Your task to perform on an android device: What's on my calendar tomorrow? Image 0: 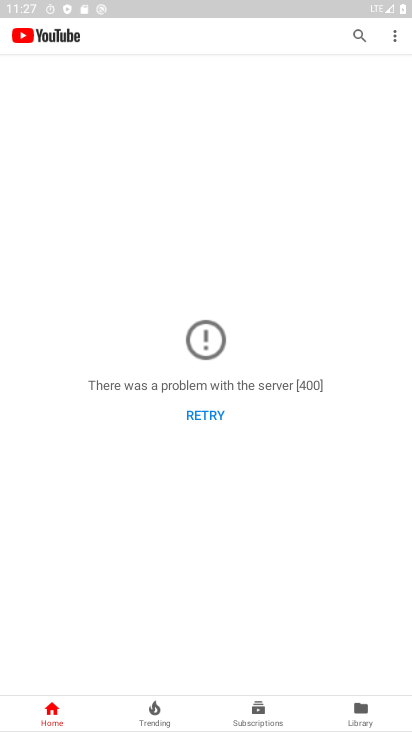
Step 0: press home button
Your task to perform on an android device: What's on my calendar tomorrow? Image 1: 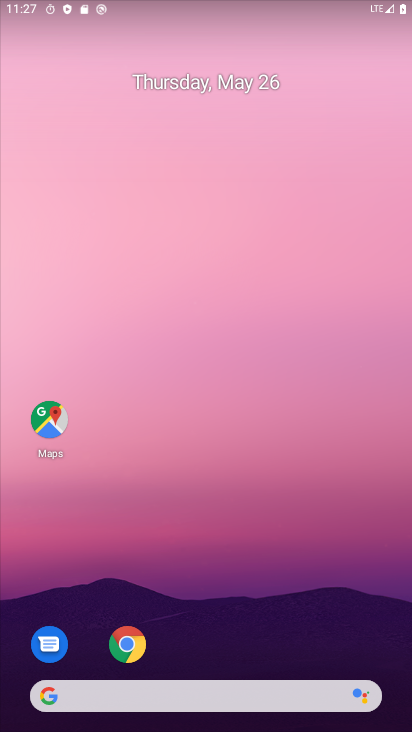
Step 1: drag from (106, 725) to (228, 80)
Your task to perform on an android device: What's on my calendar tomorrow? Image 2: 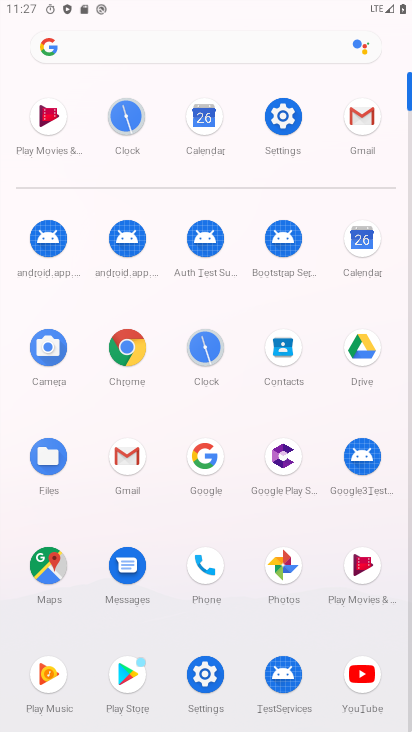
Step 2: click (370, 251)
Your task to perform on an android device: What's on my calendar tomorrow? Image 3: 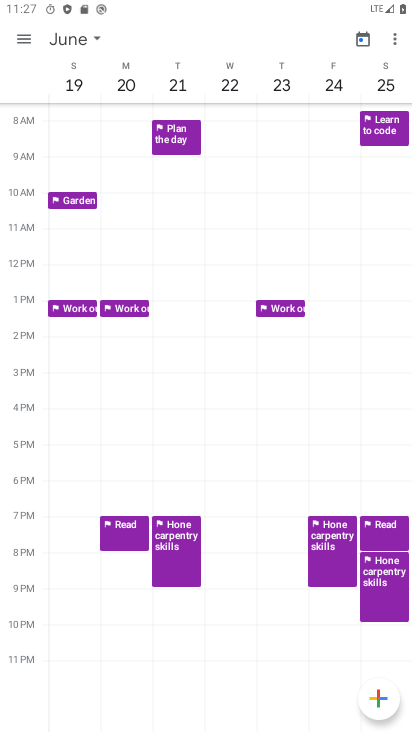
Step 3: click (101, 39)
Your task to perform on an android device: What's on my calendar tomorrow? Image 4: 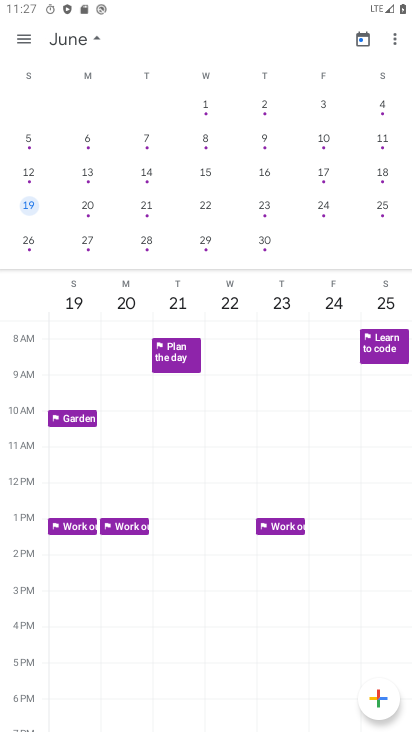
Step 4: drag from (69, 102) to (360, 121)
Your task to perform on an android device: What's on my calendar tomorrow? Image 5: 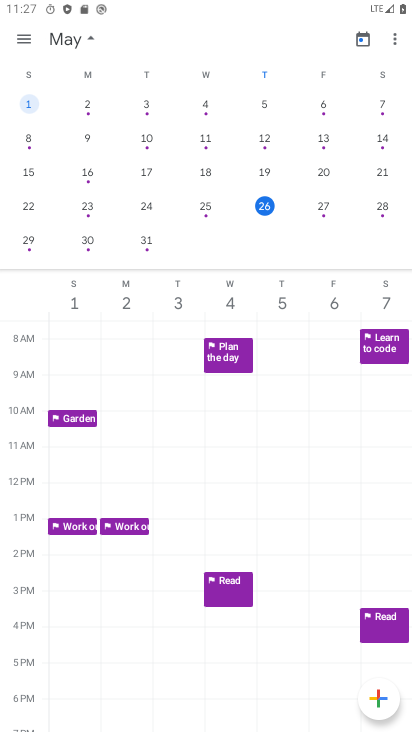
Step 5: click (322, 208)
Your task to perform on an android device: What's on my calendar tomorrow? Image 6: 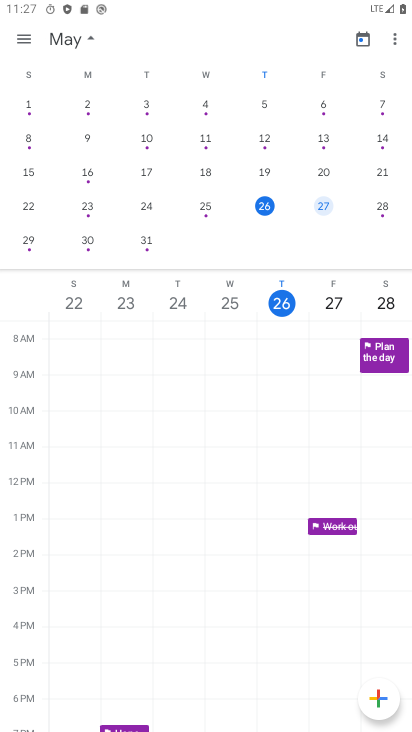
Step 6: click (89, 40)
Your task to perform on an android device: What's on my calendar tomorrow? Image 7: 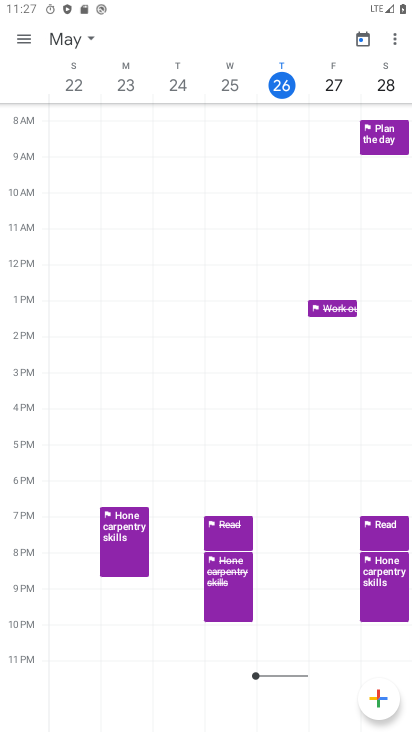
Step 7: click (25, 38)
Your task to perform on an android device: What's on my calendar tomorrow? Image 8: 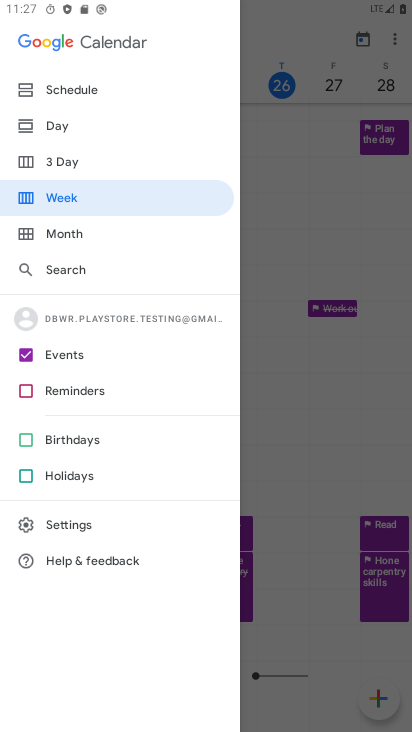
Step 8: click (90, 84)
Your task to perform on an android device: What's on my calendar tomorrow? Image 9: 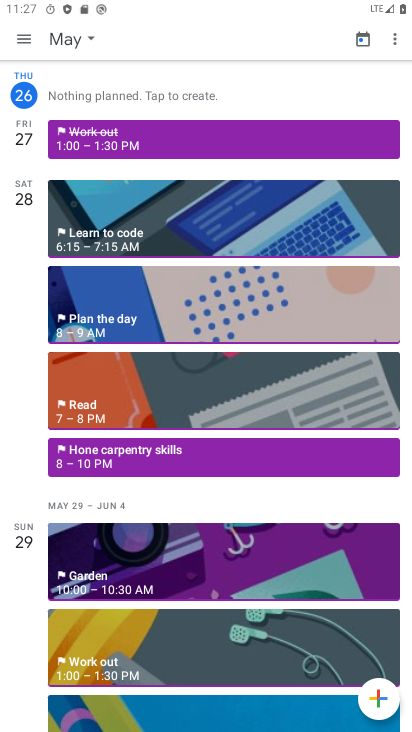
Step 9: click (187, 152)
Your task to perform on an android device: What's on my calendar tomorrow? Image 10: 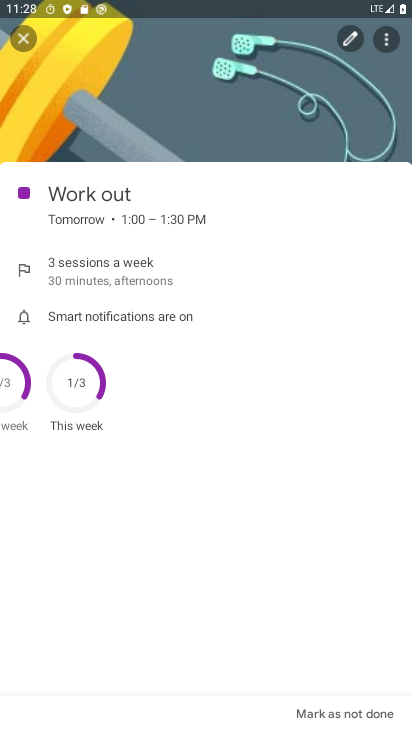
Step 10: task complete